Your task to perform on an android device: Search for sushi restaurants on Maps Image 0: 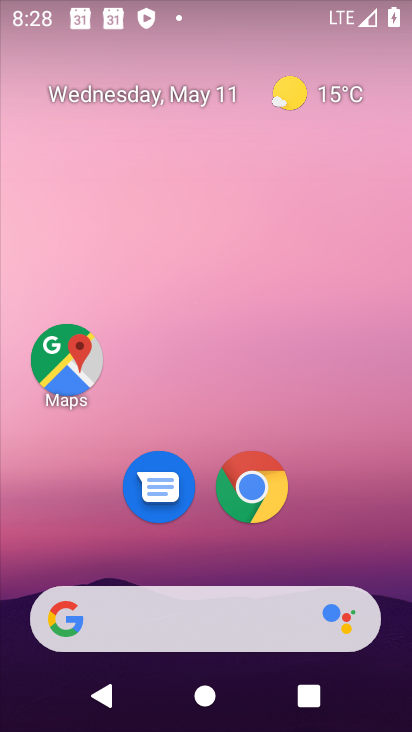
Step 0: drag from (245, 547) to (206, 233)
Your task to perform on an android device: Search for sushi restaurants on Maps Image 1: 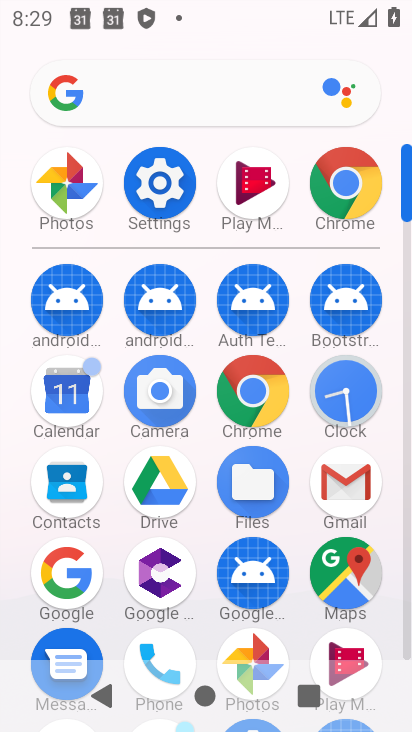
Step 1: click (360, 568)
Your task to perform on an android device: Search for sushi restaurants on Maps Image 2: 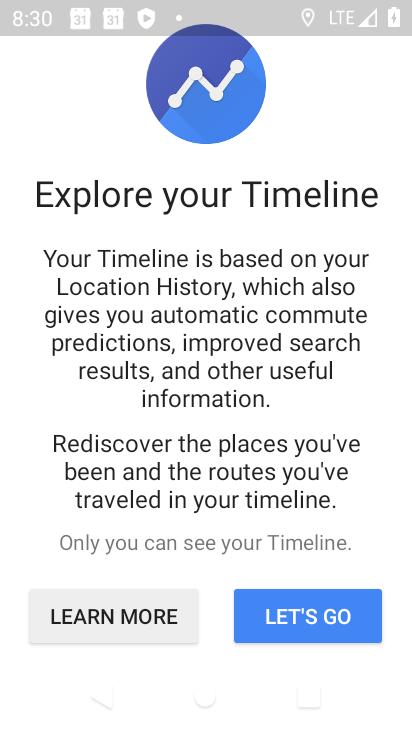
Step 2: click (332, 611)
Your task to perform on an android device: Search for sushi restaurants on Maps Image 3: 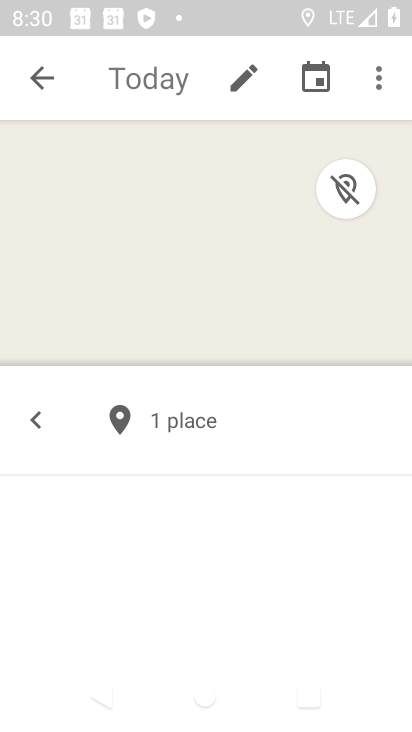
Step 3: click (32, 85)
Your task to perform on an android device: Search for sushi restaurants on Maps Image 4: 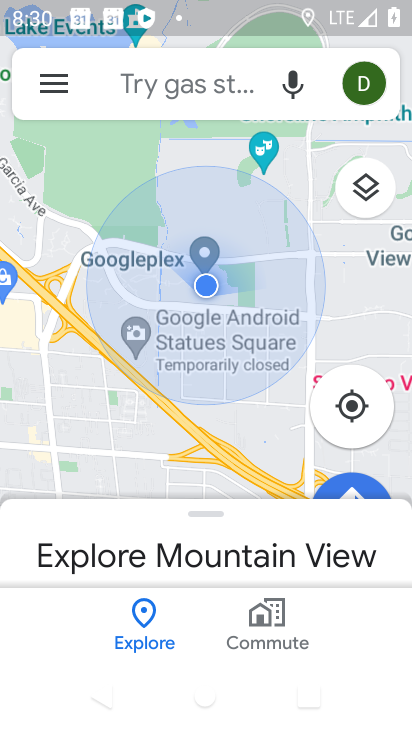
Step 4: click (109, 81)
Your task to perform on an android device: Search for sushi restaurants on Maps Image 5: 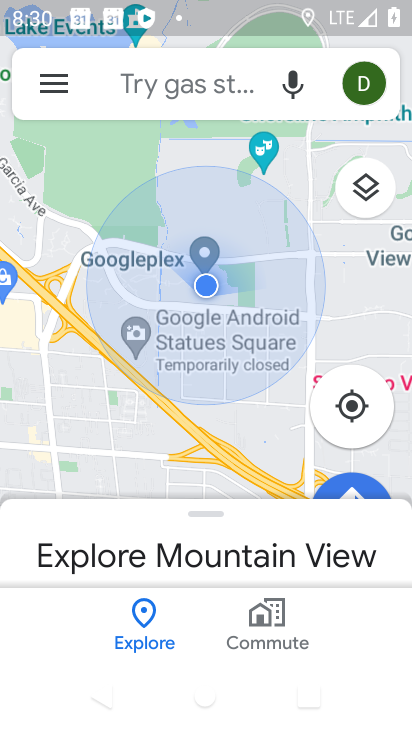
Step 5: click (171, 78)
Your task to perform on an android device: Search for sushi restaurants on Maps Image 6: 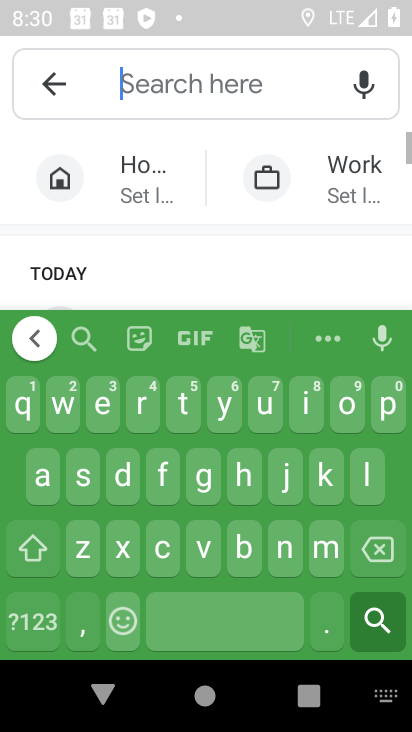
Step 6: click (75, 479)
Your task to perform on an android device: Search for sushi restaurants on Maps Image 7: 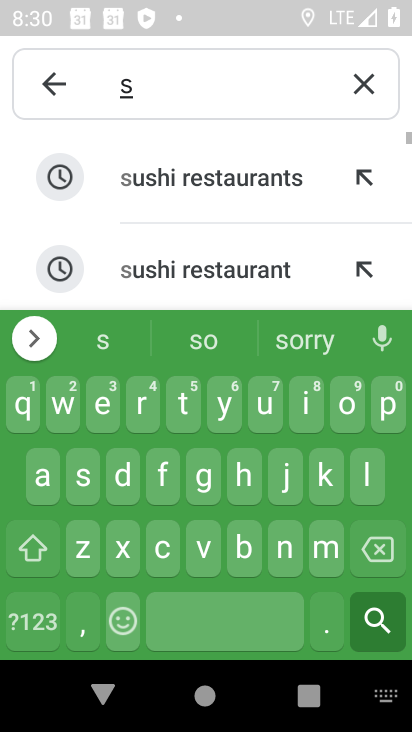
Step 7: click (273, 406)
Your task to perform on an android device: Search for sushi restaurants on Maps Image 8: 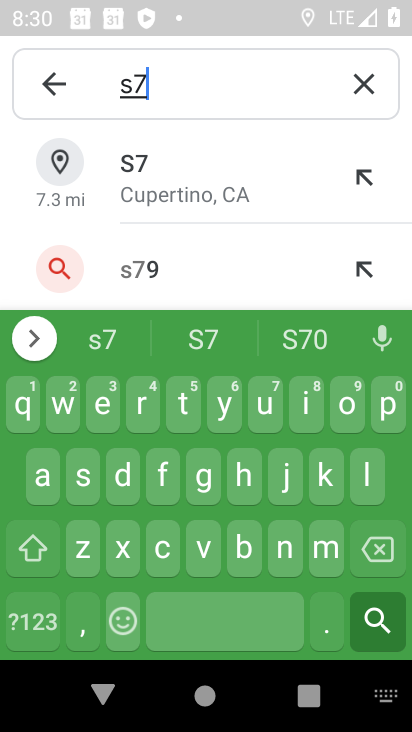
Step 8: click (378, 554)
Your task to perform on an android device: Search for sushi restaurants on Maps Image 9: 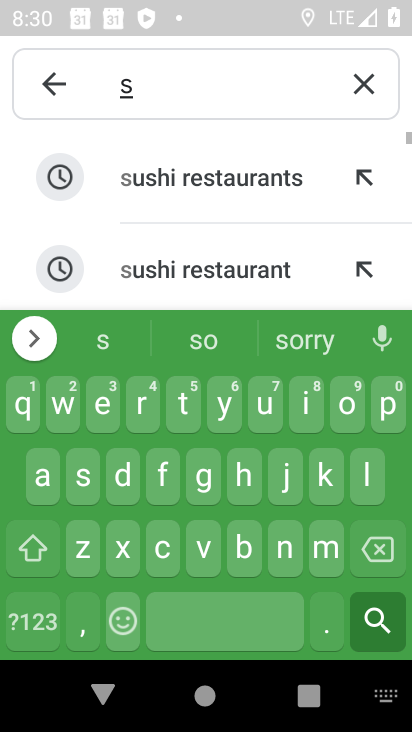
Step 9: click (196, 189)
Your task to perform on an android device: Search for sushi restaurants on Maps Image 10: 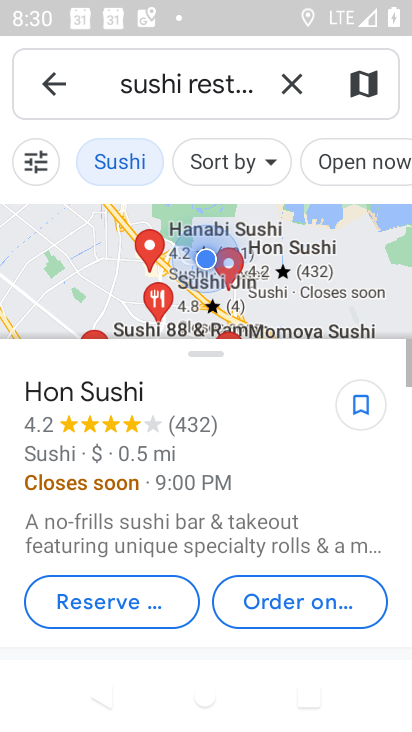
Step 10: task complete